Your task to perform on an android device: See recent photos Image 0: 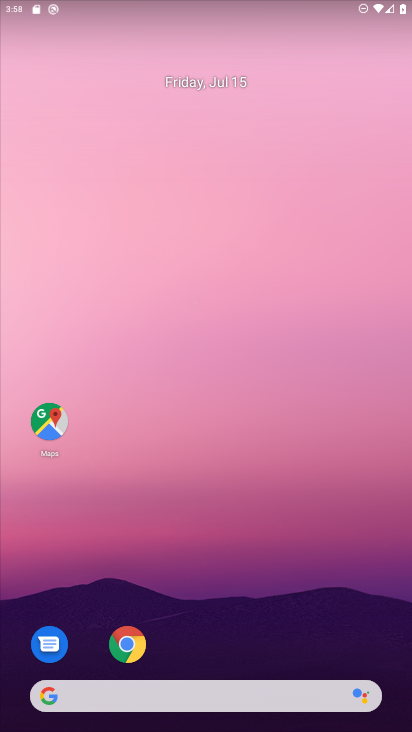
Step 0: drag from (86, 573) to (344, 86)
Your task to perform on an android device: See recent photos Image 1: 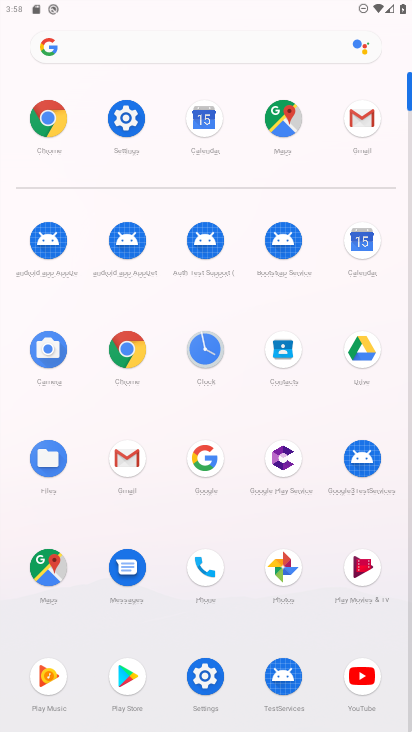
Step 1: click (289, 572)
Your task to perform on an android device: See recent photos Image 2: 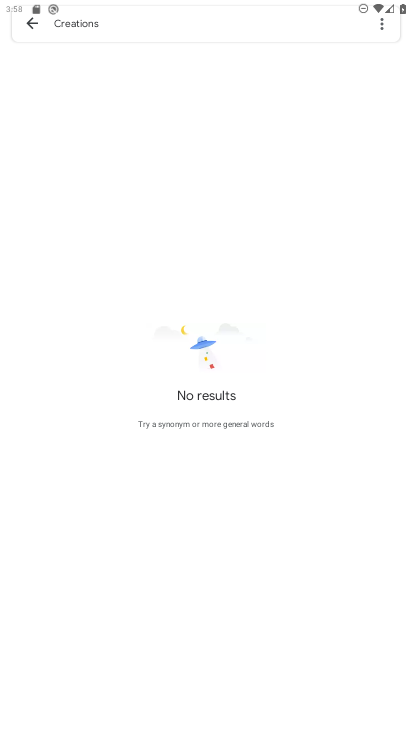
Step 2: task complete